Your task to perform on an android device: Go to location settings Image 0: 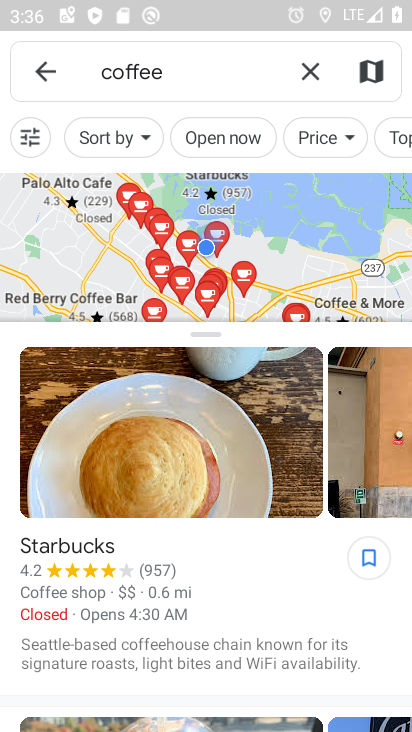
Step 0: press home button
Your task to perform on an android device: Go to location settings Image 1: 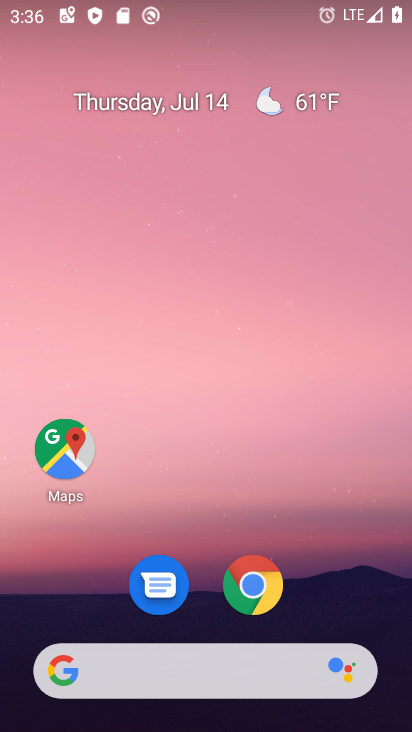
Step 1: drag from (328, 539) to (296, 59)
Your task to perform on an android device: Go to location settings Image 2: 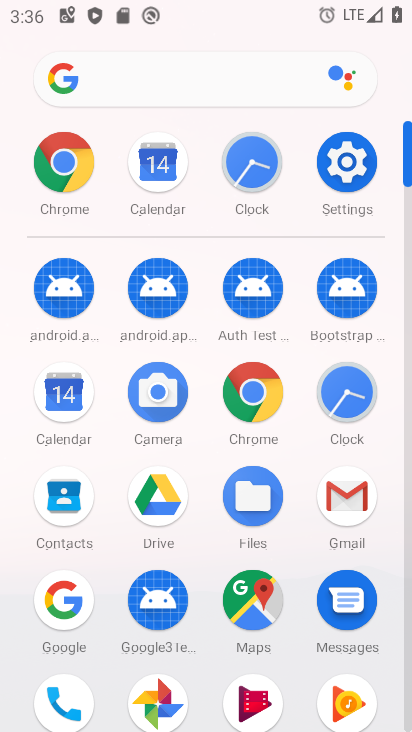
Step 2: click (352, 157)
Your task to perform on an android device: Go to location settings Image 3: 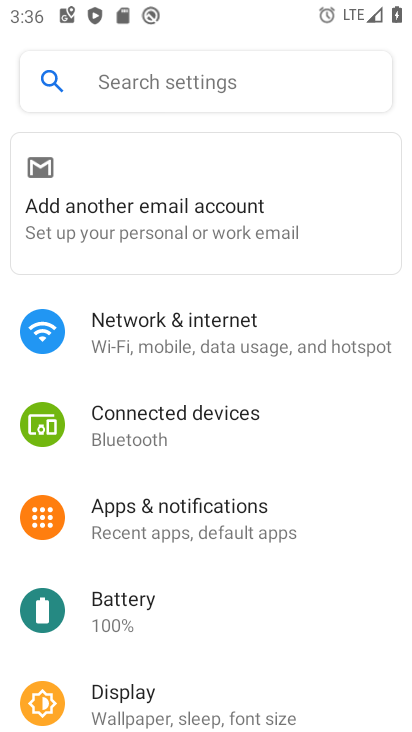
Step 3: drag from (230, 629) to (235, 15)
Your task to perform on an android device: Go to location settings Image 4: 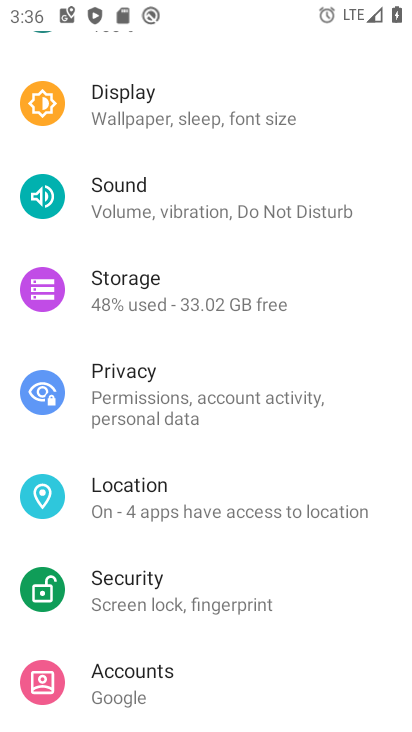
Step 4: click (199, 505)
Your task to perform on an android device: Go to location settings Image 5: 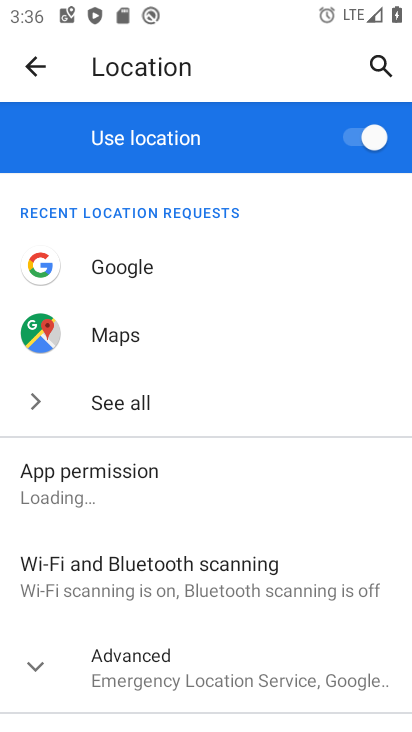
Step 5: click (39, 666)
Your task to perform on an android device: Go to location settings Image 6: 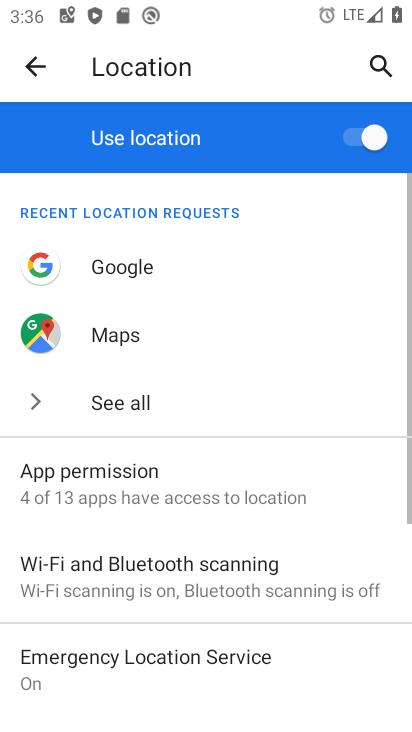
Step 6: task complete